Your task to perform on an android device: Open the calendar and show me this week's events? Image 0: 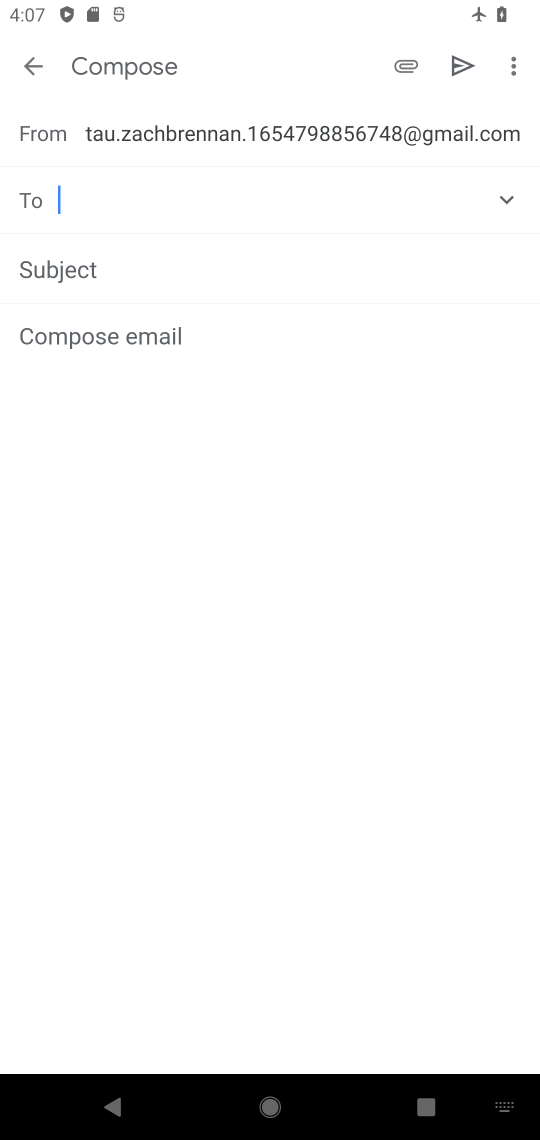
Step 0: press home button
Your task to perform on an android device: Open the calendar and show me this week's events? Image 1: 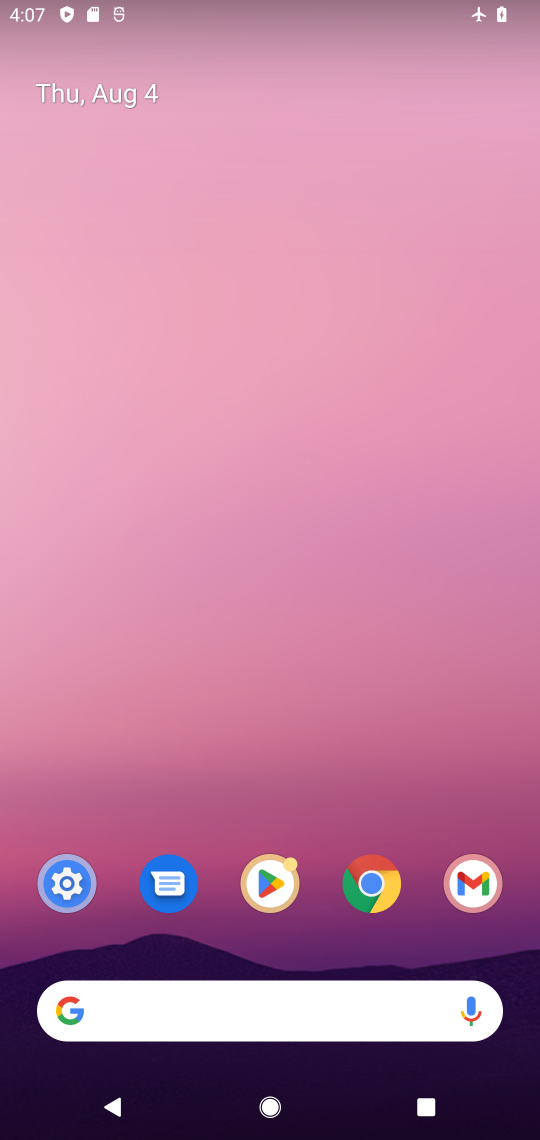
Step 1: drag from (478, 817) to (123, 78)
Your task to perform on an android device: Open the calendar and show me this week's events? Image 2: 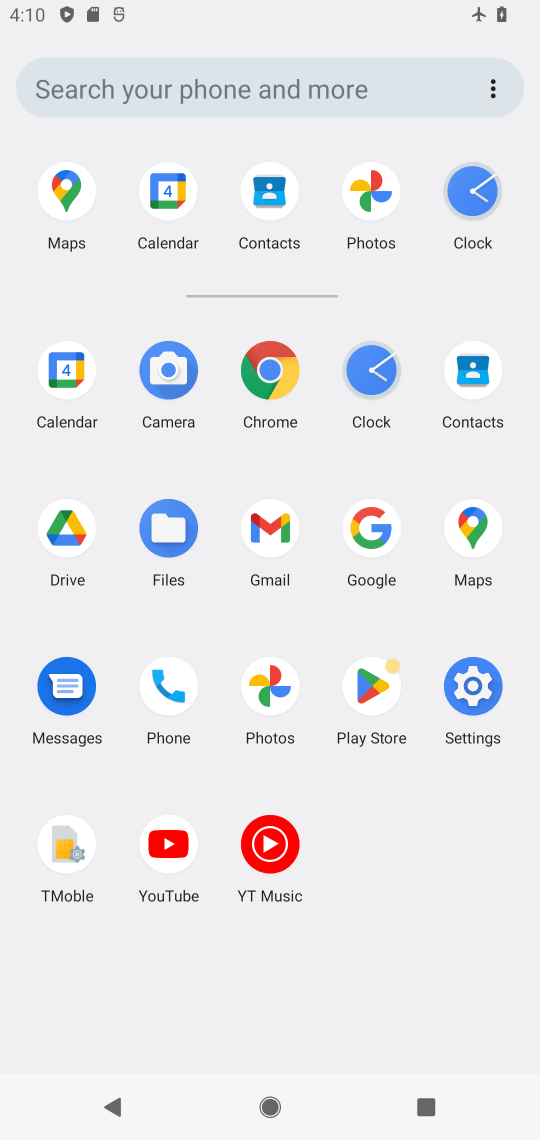
Step 2: click (82, 390)
Your task to perform on an android device: Open the calendar and show me this week's events? Image 3: 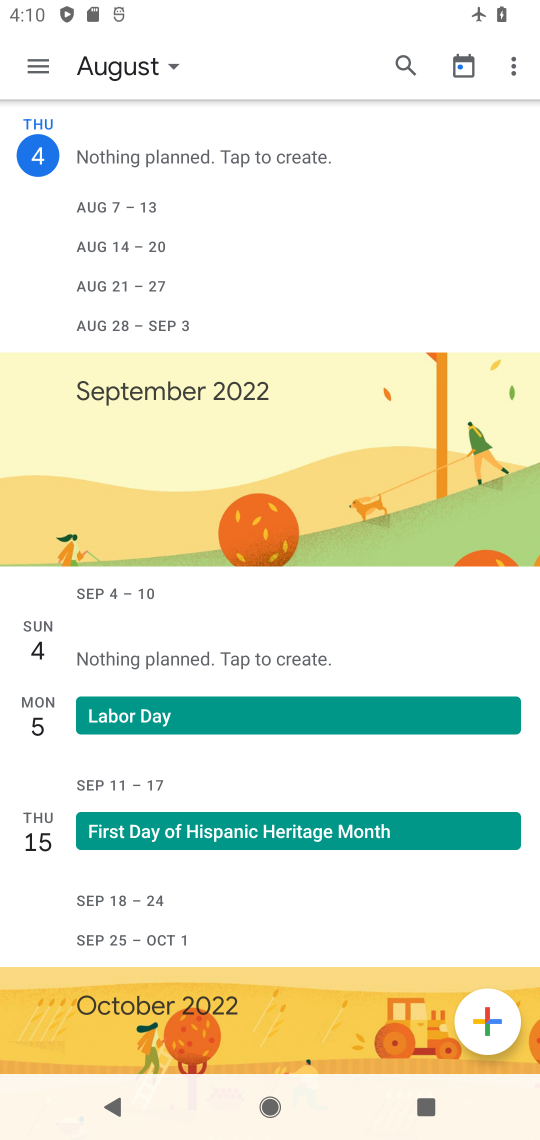
Step 3: task complete